Your task to perform on an android device: toggle javascript in the chrome app Image 0: 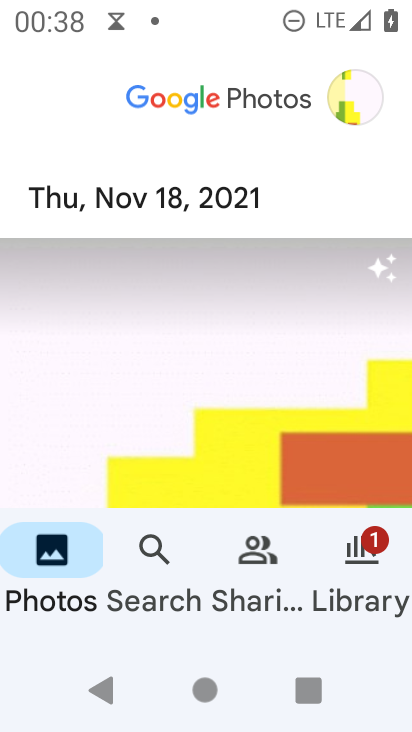
Step 0: press home button
Your task to perform on an android device: toggle javascript in the chrome app Image 1: 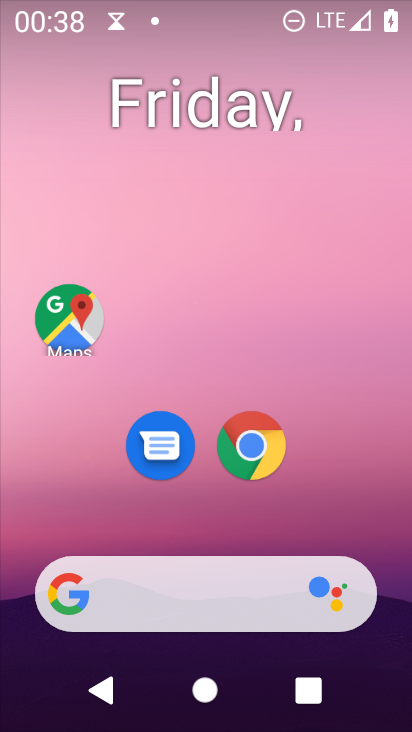
Step 1: click (253, 443)
Your task to perform on an android device: toggle javascript in the chrome app Image 2: 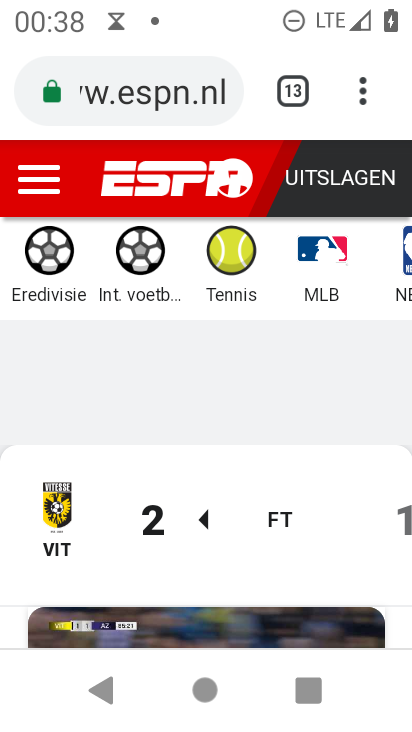
Step 2: click (362, 98)
Your task to perform on an android device: toggle javascript in the chrome app Image 3: 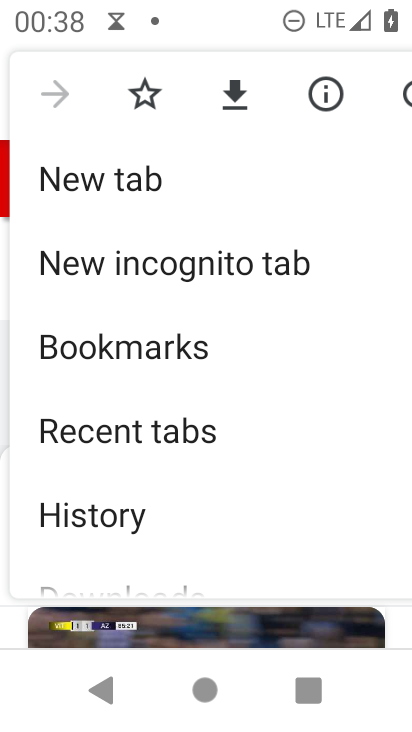
Step 3: drag from (104, 556) to (85, 141)
Your task to perform on an android device: toggle javascript in the chrome app Image 4: 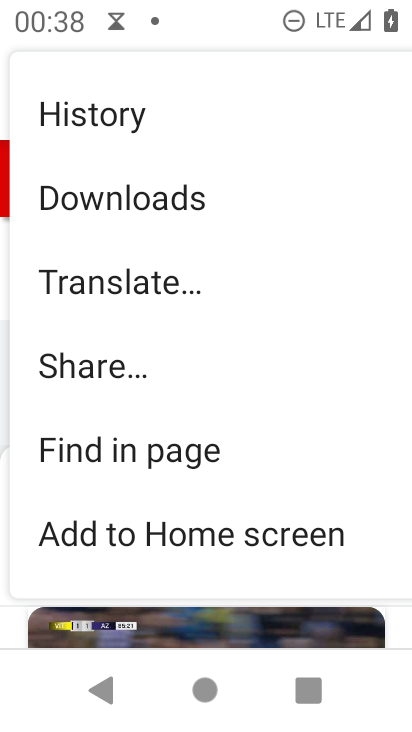
Step 4: drag from (99, 572) to (102, 174)
Your task to perform on an android device: toggle javascript in the chrome app Image 5: 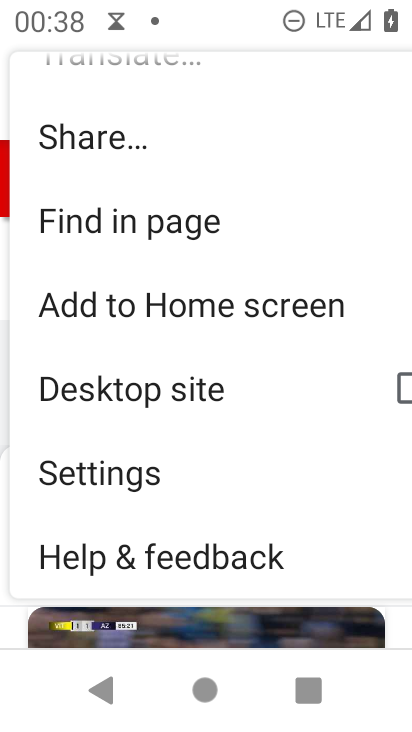
Step 5: click (111, 475)
Your task to perform on an android device: toggle javascript in the chrome app Image 6: 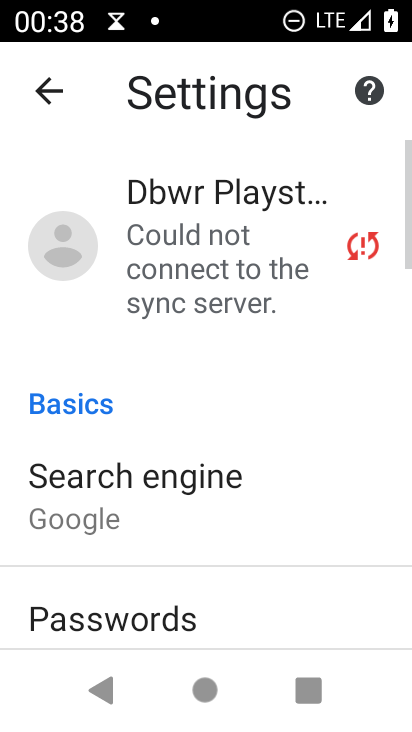
Step 6: drag from (207, 623) to (216, 215)
Your task to perform on an android device: toggle javascript in the chrome app Image 7: 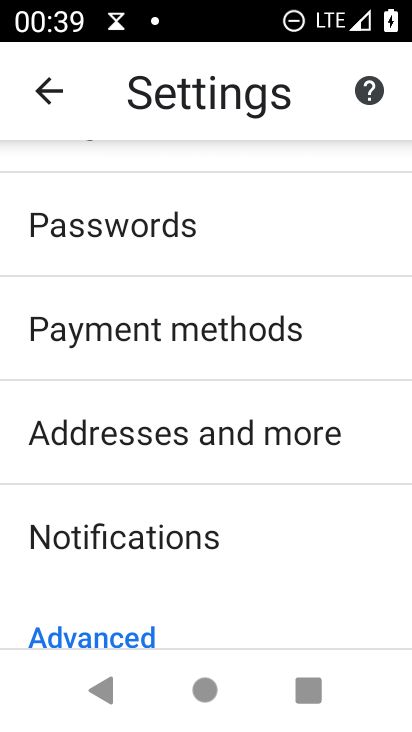
Step 7: drag from (222, 619) to (219, 232)
Your task to perform on an android device: toggle javascript in the chrome app Image 8: 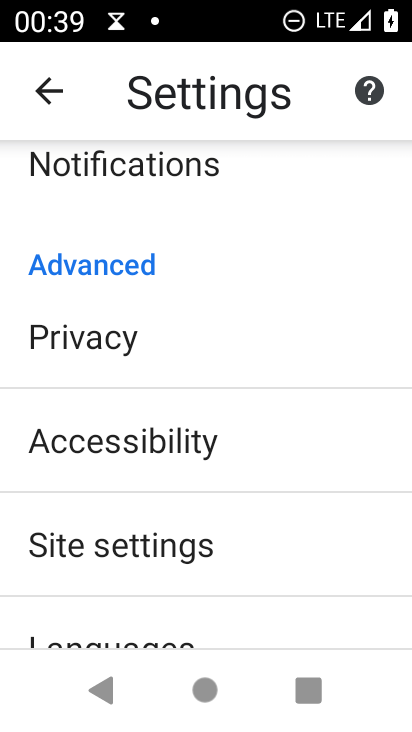
Step 8: click (152, 546)
Your task to perform on an android device: toggle javascript in the chrome app Image 9: 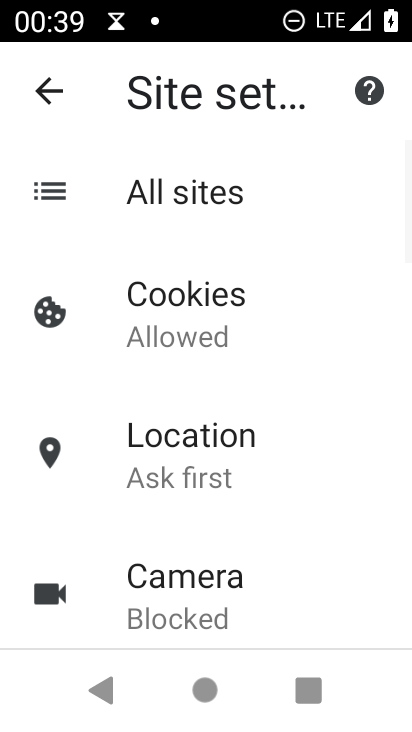
Step 9: drag from (236, 618) to (216, 183)
Your task to perform on an android device: toggle javascript in the chrome app Image 10: 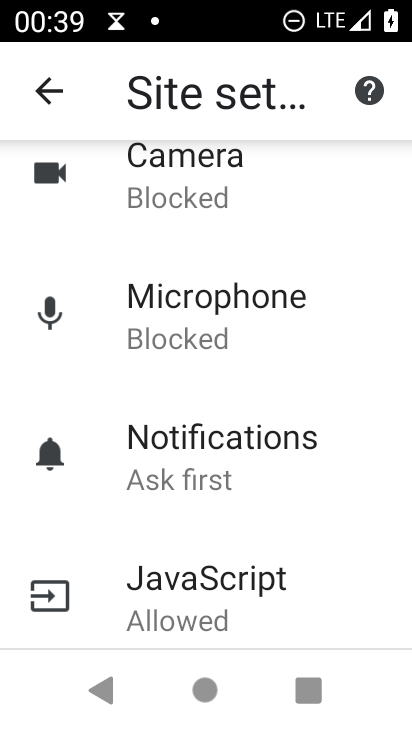
Step 10: click (201, 588)
Your task to perform on an android device: toggle javascript in the chrome app Image 11: 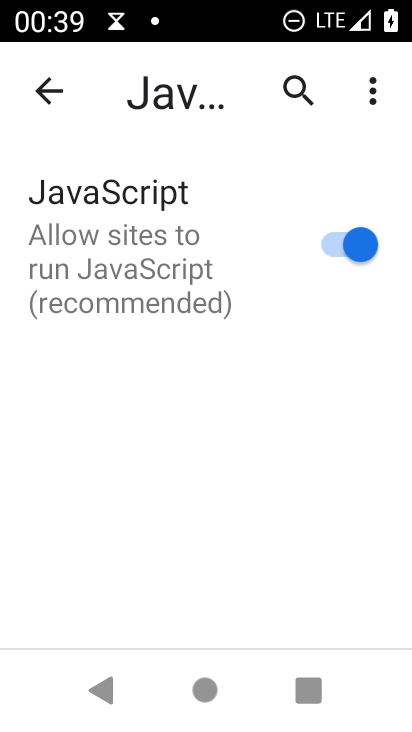
Step 11: click (334, 241)
Your task to perform on an android device: toggle javascript in the chrome app Image 12: 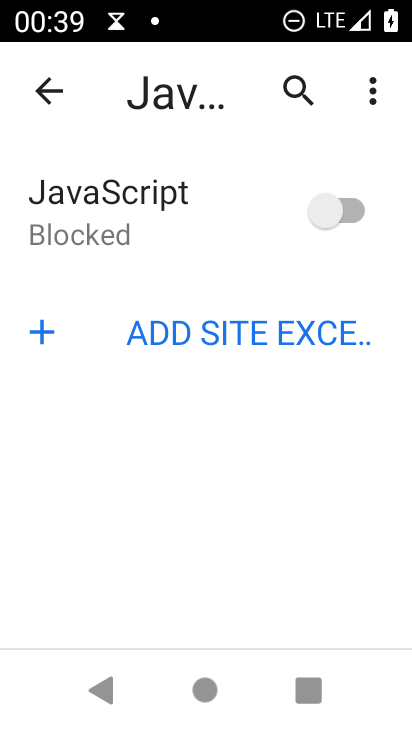
Step 12: task complete